Your task to perform on an android device: check storage Image 0: 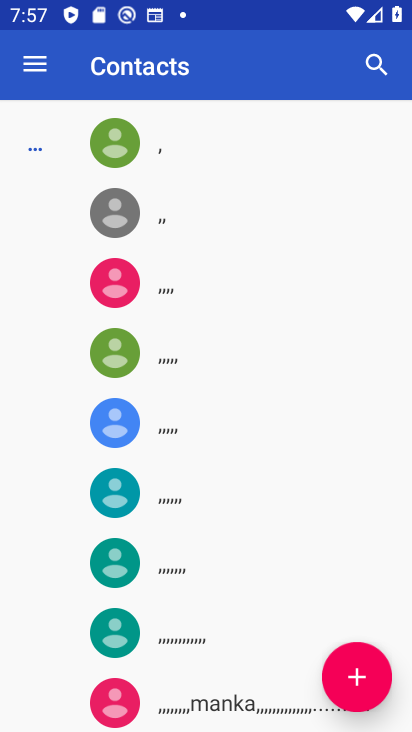
Step 0: press home button
Your task to perform on an android device: check storage Image 1: 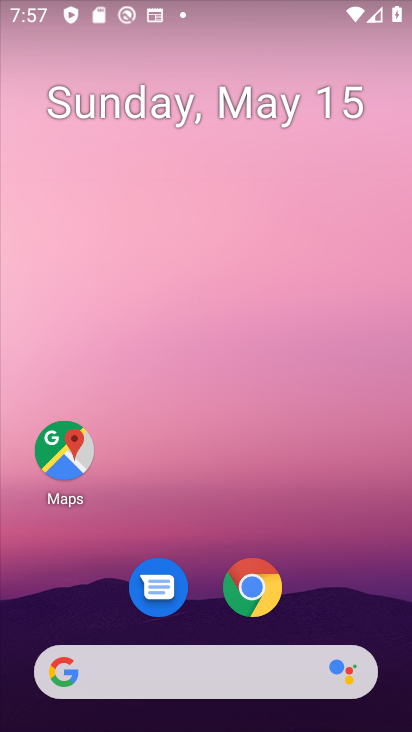
Step 1: drag from (215, 611) to (241, 362)
Your task to perform on an android device: check storage Image 2: 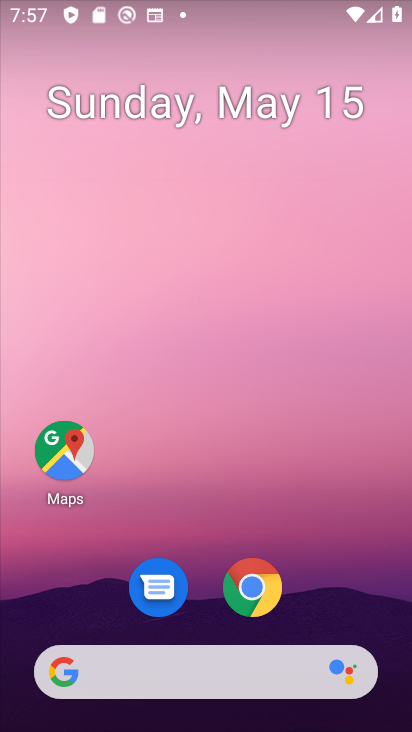
Step 2: drag from (212, 511) to (206, 0)
Your task to perform on an android device: check storage Image 3: 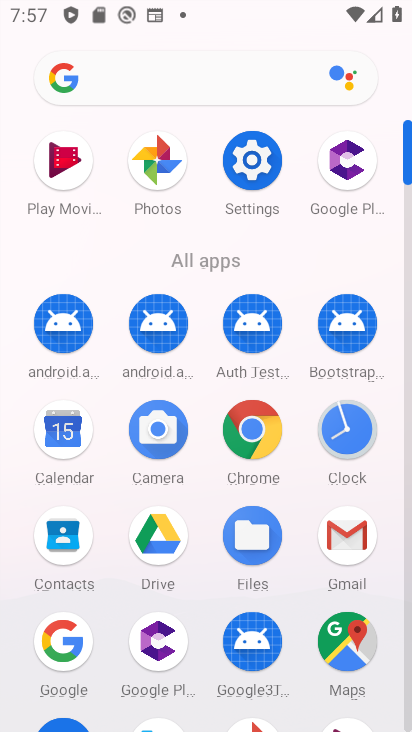
Step 3: click (244, 171)
Your task to perform on an android device: check storage Image 4: 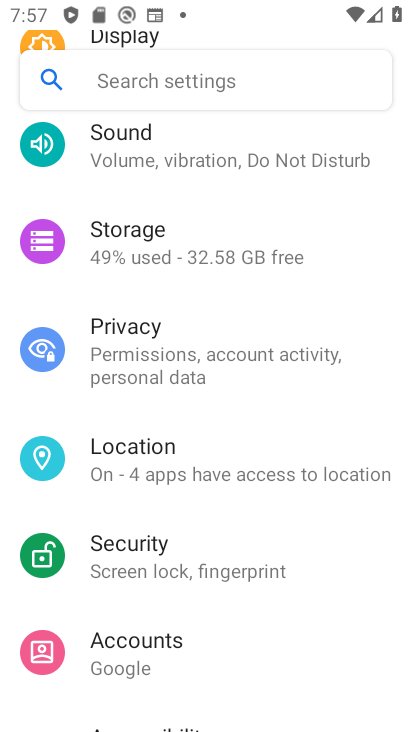
Step 4: click (195, 243)
Your task to perform on an android device: check storage Image 5: 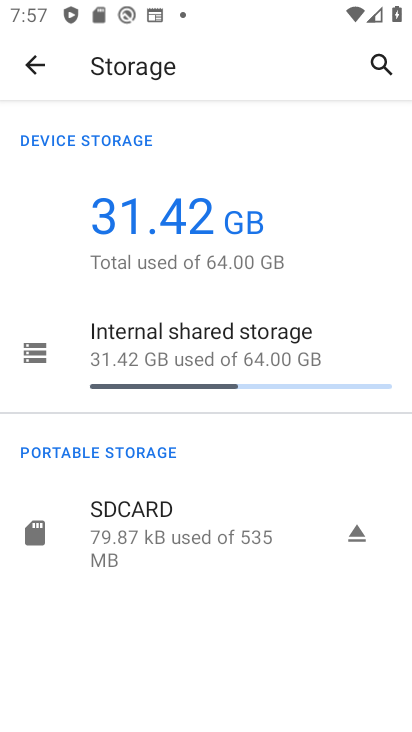
Step 5: task complete